Your task to perform on an android device: install app "Instagram" Image 0: 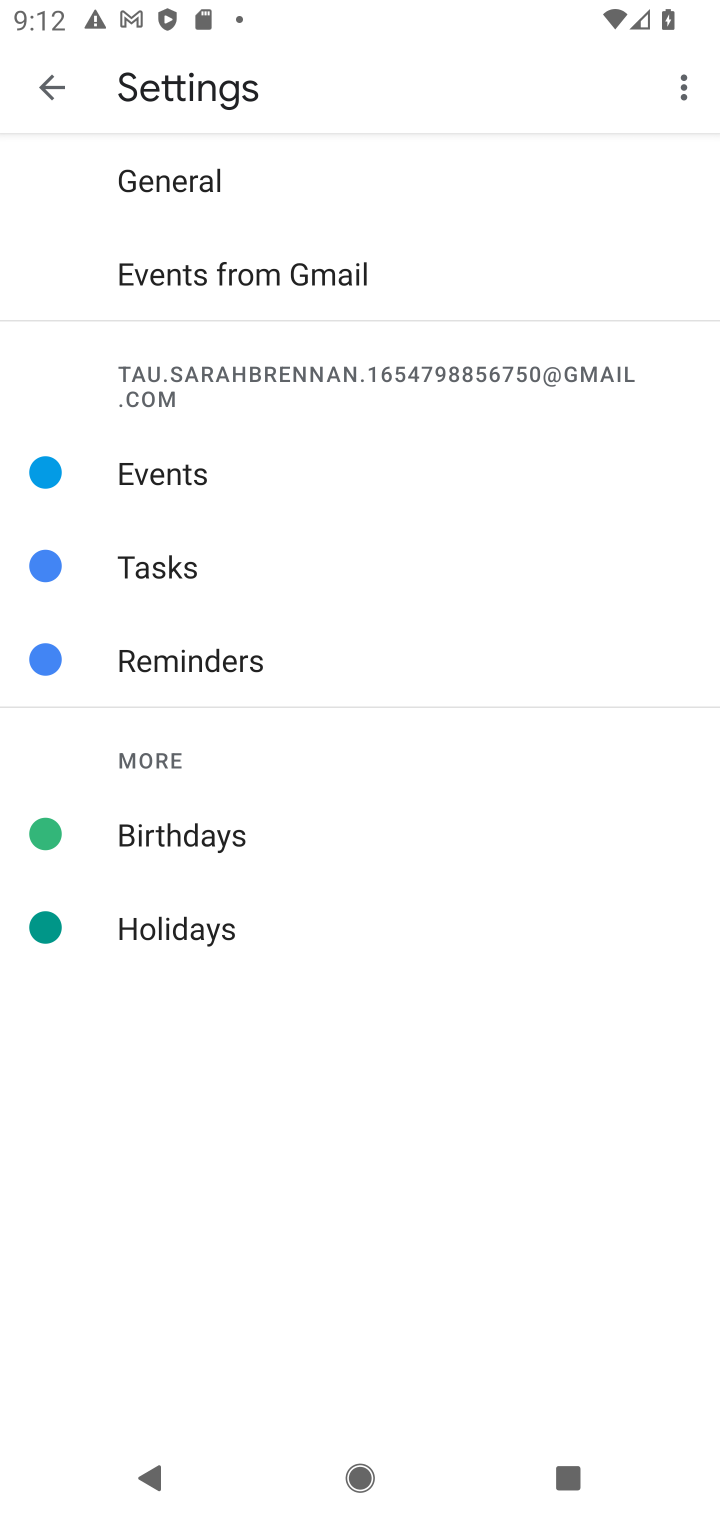
Step 0: press home button
Your task to perform on an android device: install app "Instagram" Image 1: 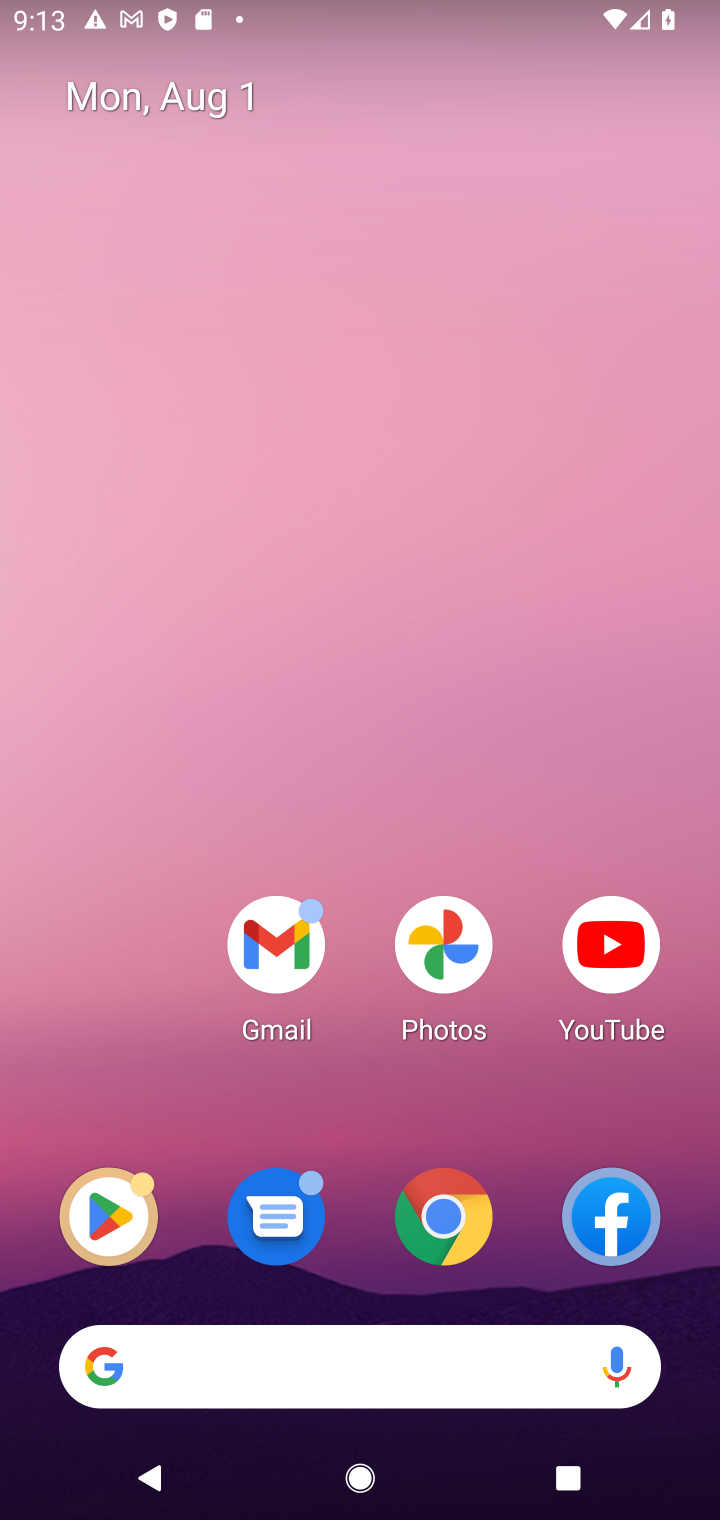
Step 1: click (127, 1229)
Your task to perform on an android device: install app "Instagram" Image 2: 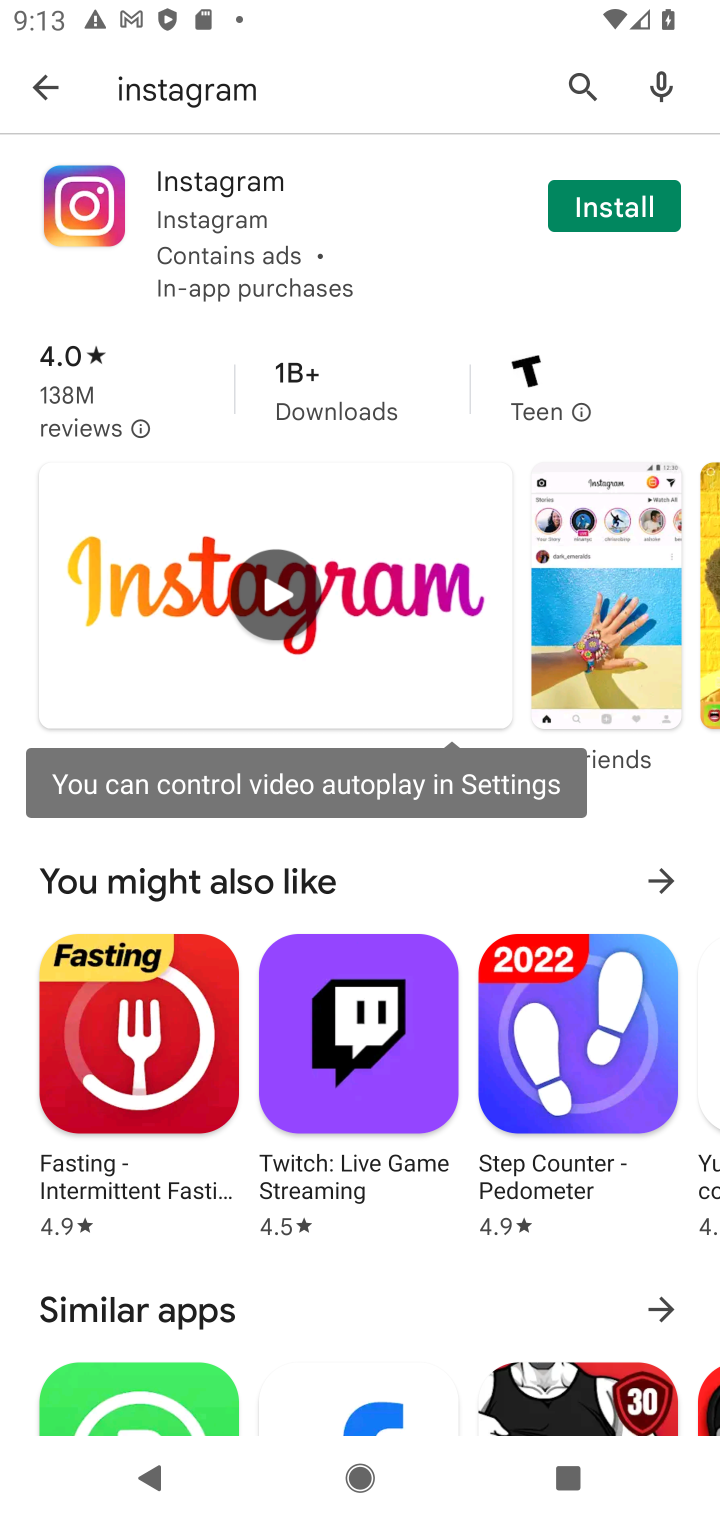
Step 2: click (578, 74)
Your task to perform on an android device: install app "Instagram" Image 3: 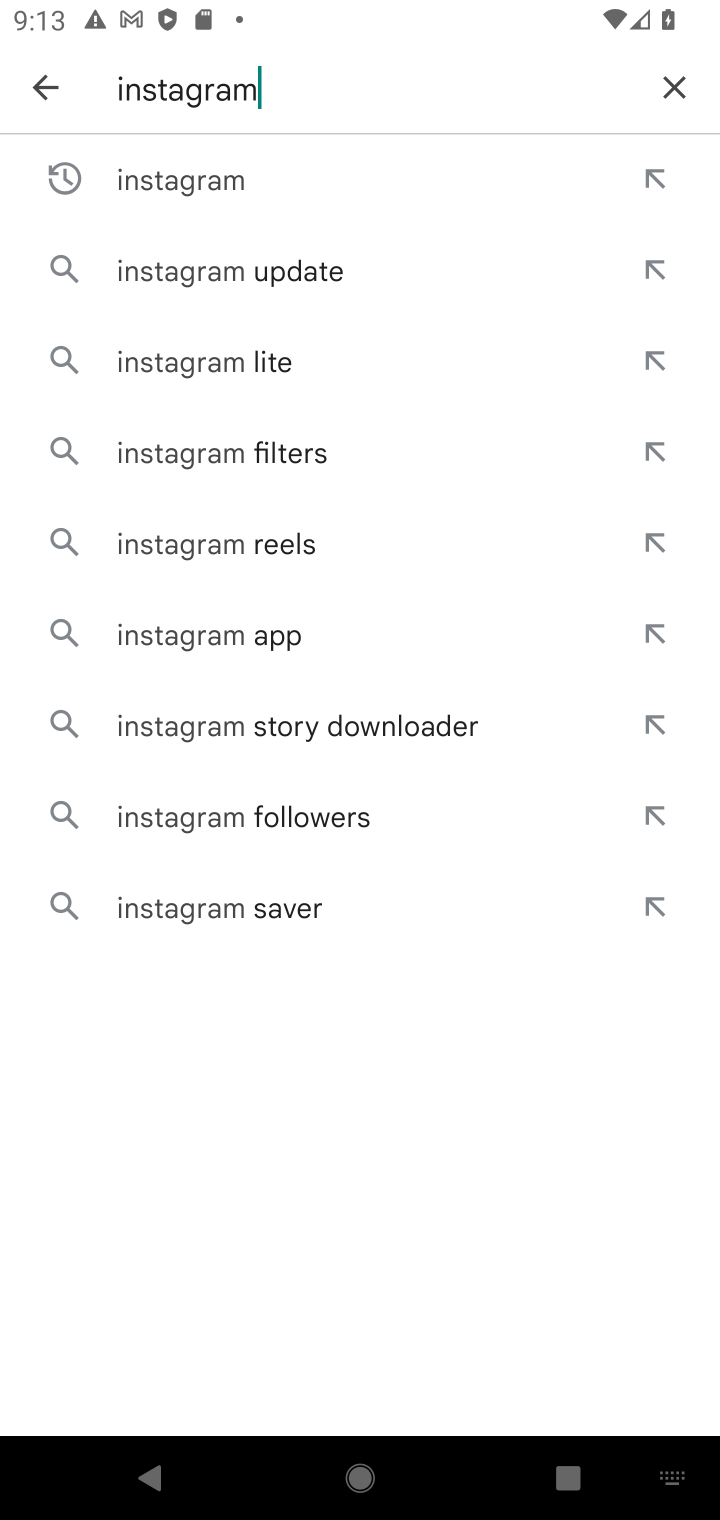
Step 3: click (672, 93)
Your task to perform on an android device: install app "Instagram" Image 4: 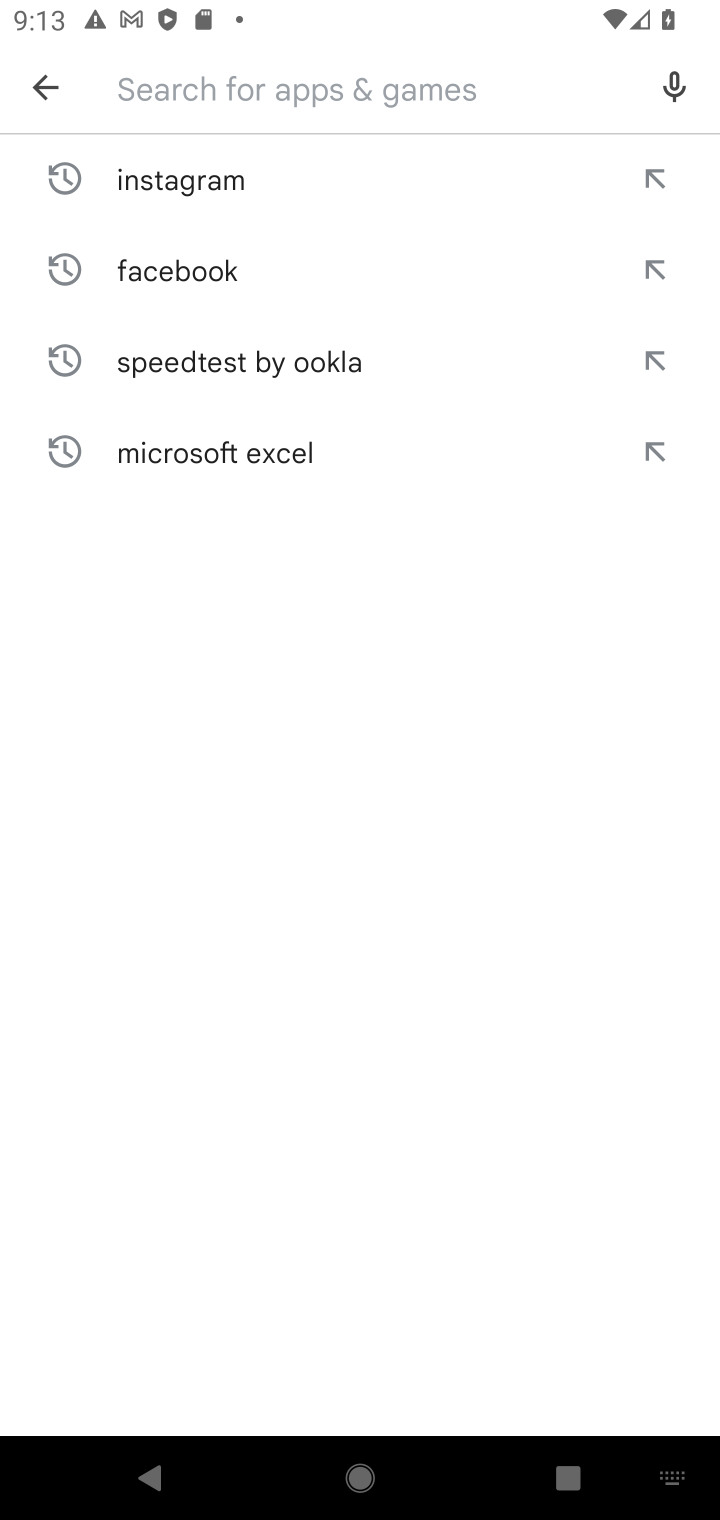
Step 4: type "Instagram"
Your task to perform on an android device: install app "Instagram" Image 5: 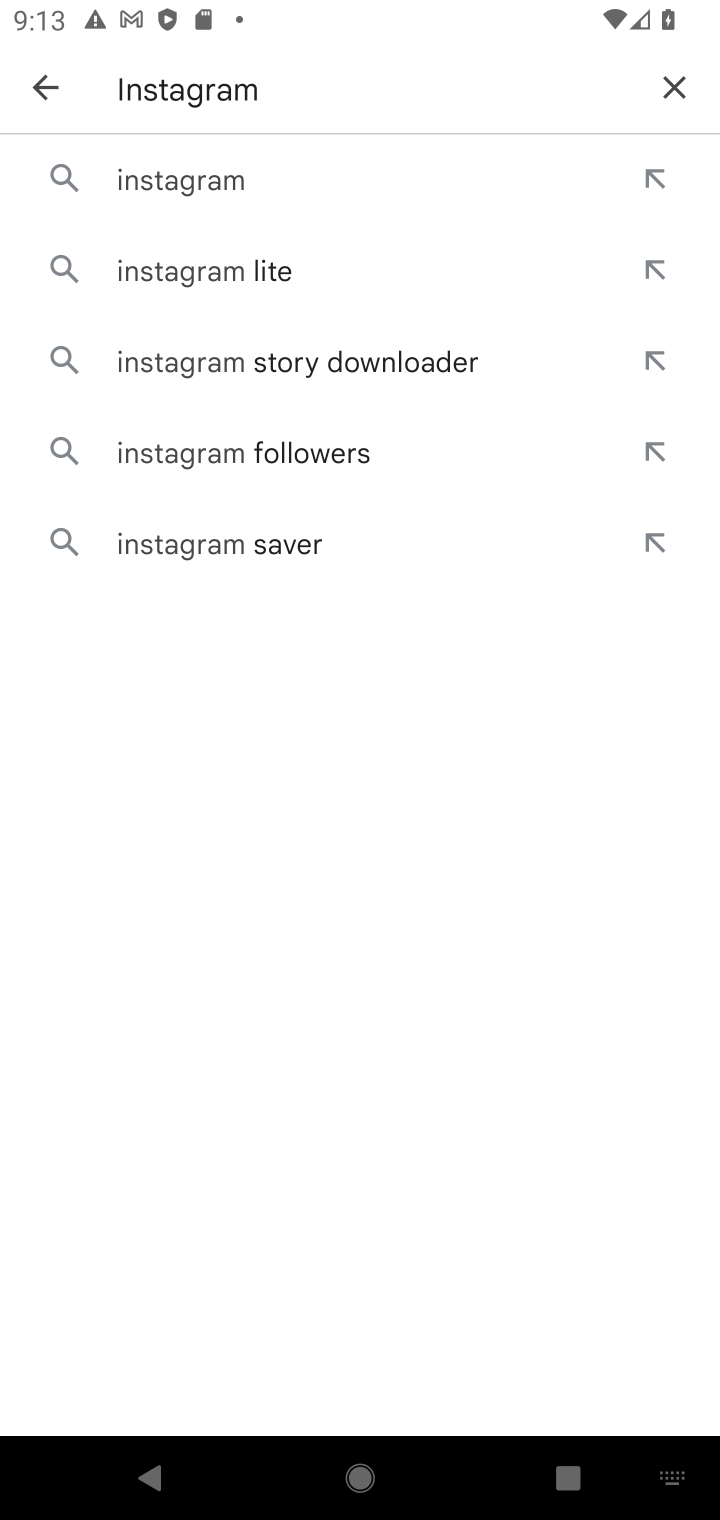
Step 5: click (188, 193)
Your task to perform on an android device: install app "Instagram" Image 6: 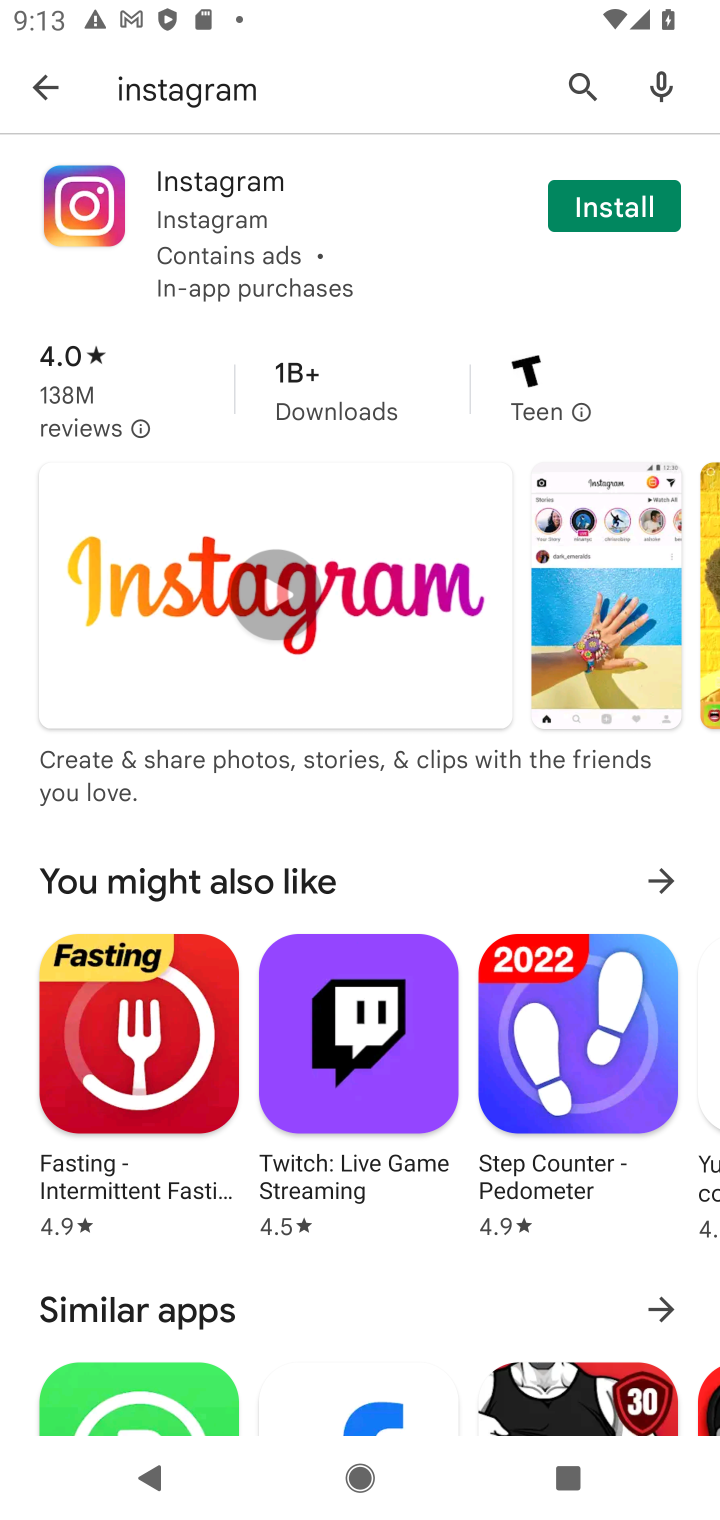
Step 6: click (602, 216)
Your task to perform on an android device: install app "Instagram" Image 7: 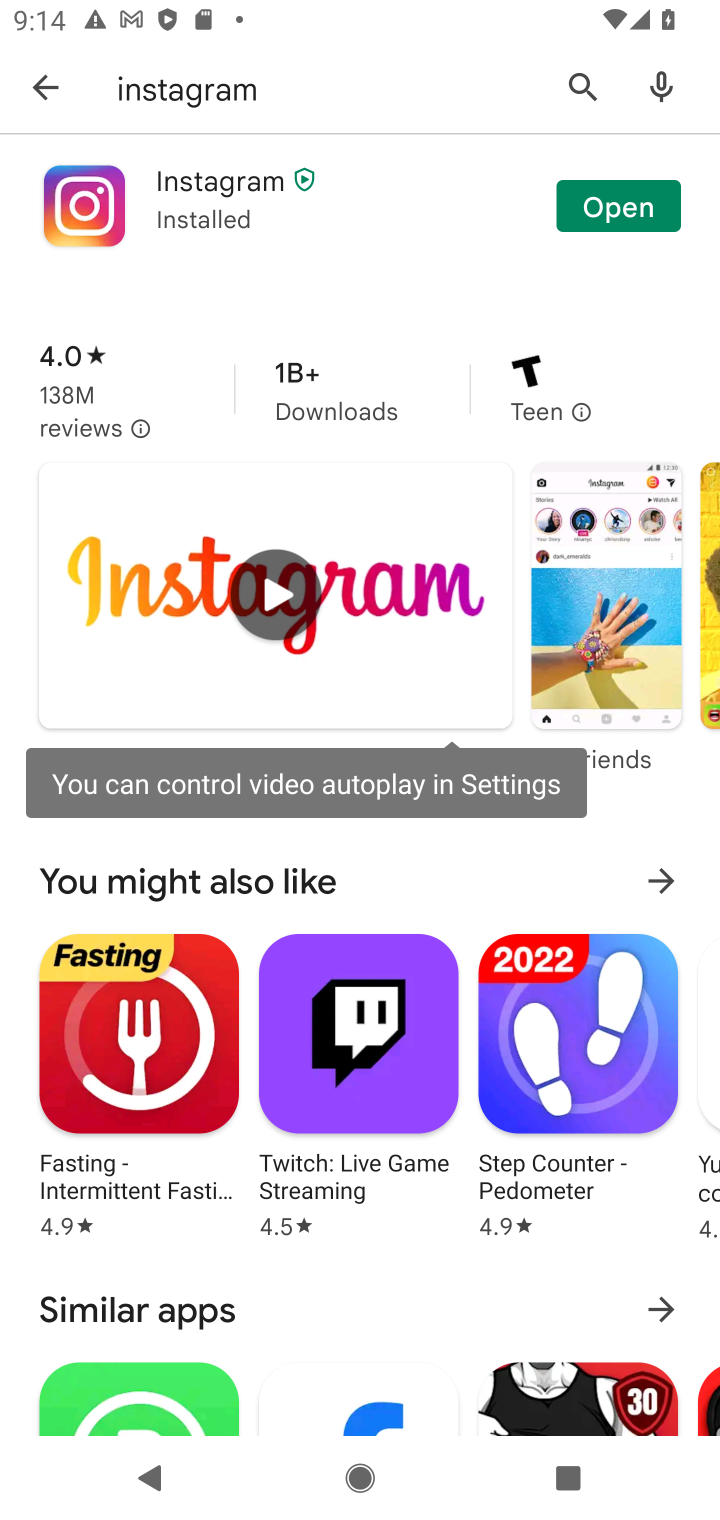
Step 7: task complete